Your task to perform on an android device: clear history in the chrome app Image 0: 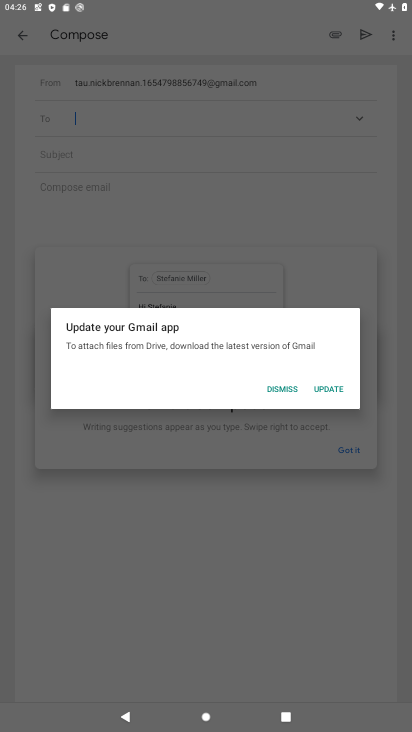
Step 0: press home button
Your task to perform on an android device: clear history in the chrome app Image 1: 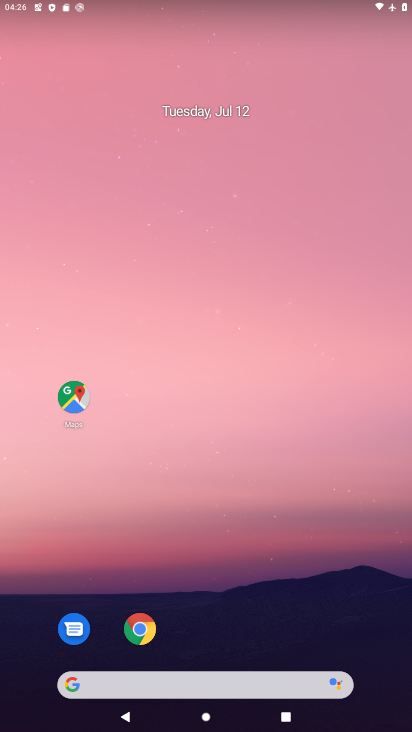
Step 1: drag from (219, 596) to (218, 222)
Your task to perform on an android device: clear history in the chrome app Image 2: 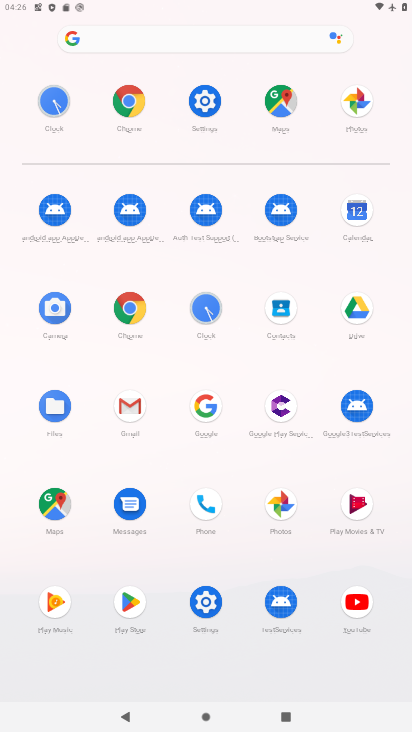
Step 2: click (129, 313)
Your task to perform on an android device: clear history in the chrome app Image 3: 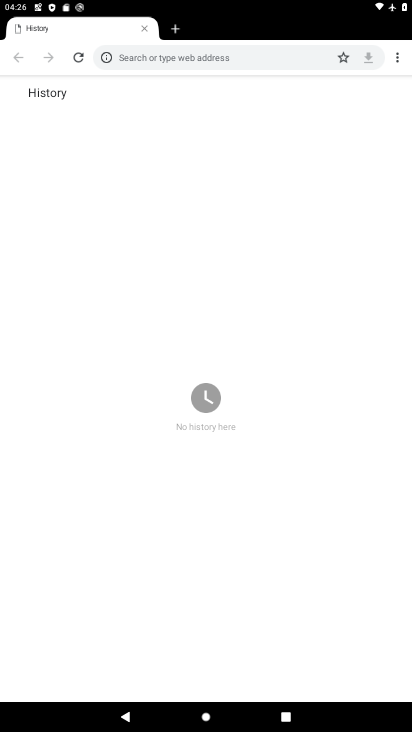
Step 3: task complete